Your task to perform on an android device: allow notifications from all sites in the chrome app Image 0: 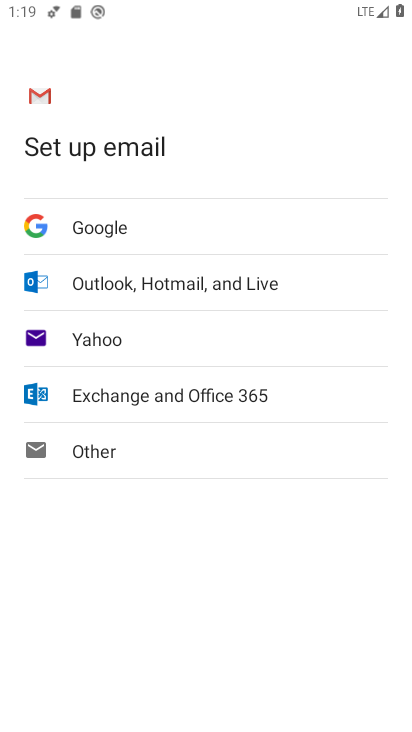
Step 0: press home button
Your task to perform on an android device: allow notifications from all sites in the chrome app Image 1: 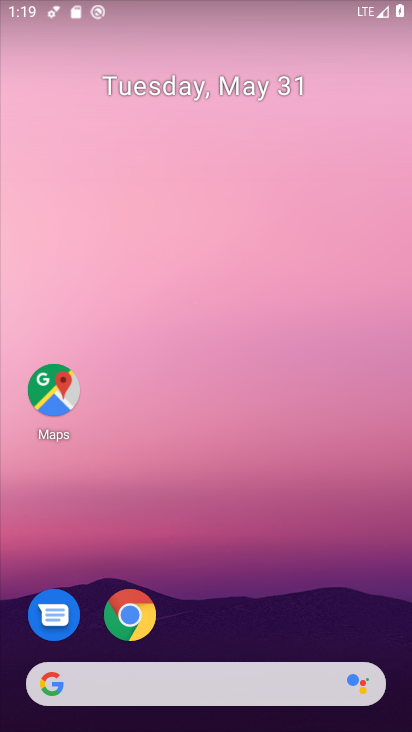
Step 1: click (126, 611)
Your task to perform on an android device: allow notifications from all sites in the chrome app Image 2: 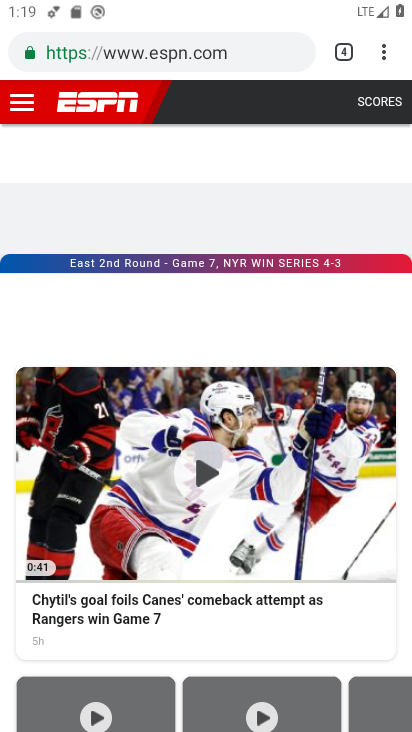
Step 2: click (383, 53)
Your task to perform on an android device: allow notifications from all sites in the chrome app Image 3: 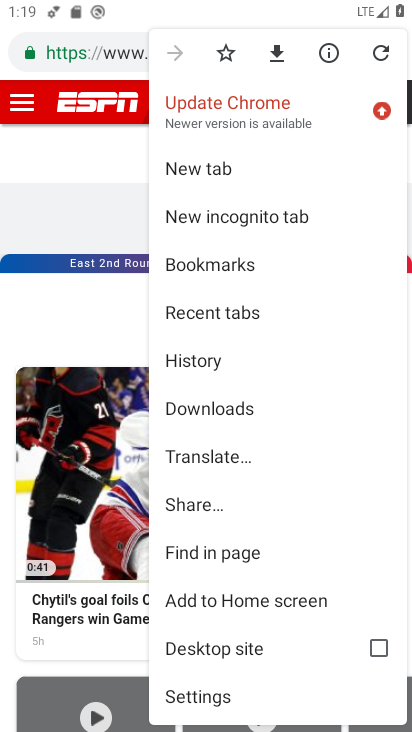
Step 3: click (200, 704)
Your task to perform on an android device: allow notifications from all sites in the chrome app Image 4: 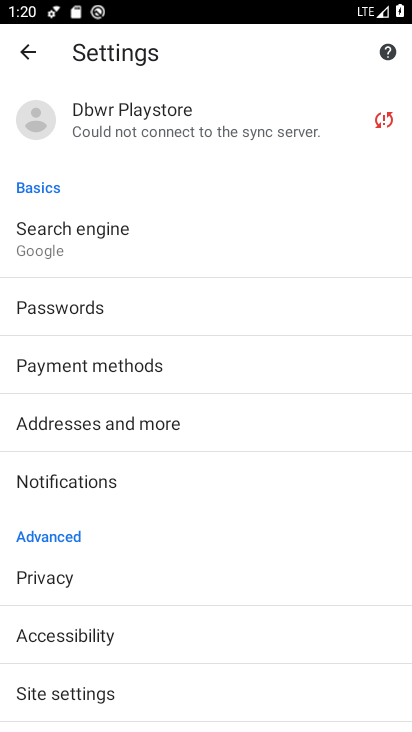
Step 4: click (79, 488)
Your task to perform on an android device: allow notifications from all sites in the chrome app Image 5: 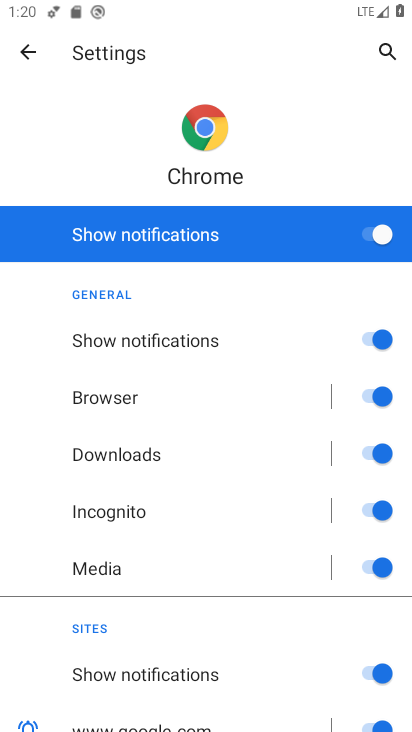
Step 5: task complete